Your task to perform on an android device: turn on notifications settings in the gmail app Image 0: 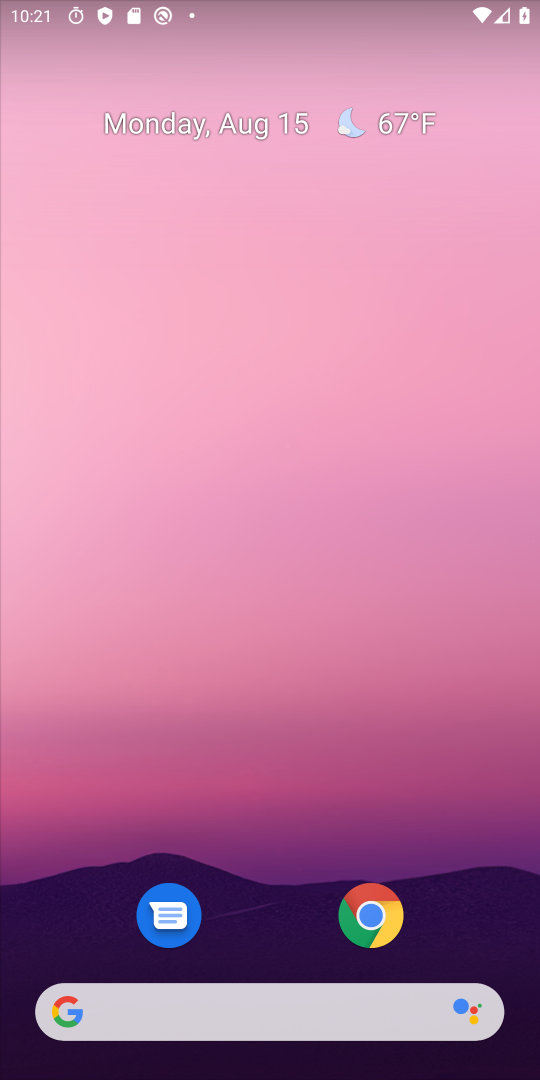
Step 0: drag from (460, 911) to (390, 151)
Your task to perform on an android device: turn on notifications settings in the gmail app Image 1: 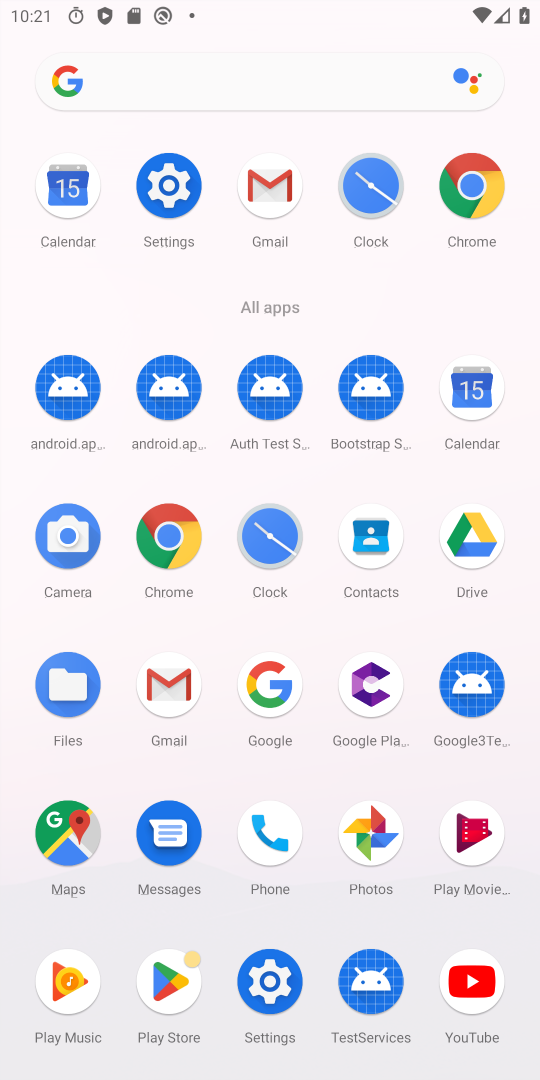
Step 1: click (175, 682)
Your task to perform on an android device: turn on notifications settings in the gmail app Image 2: 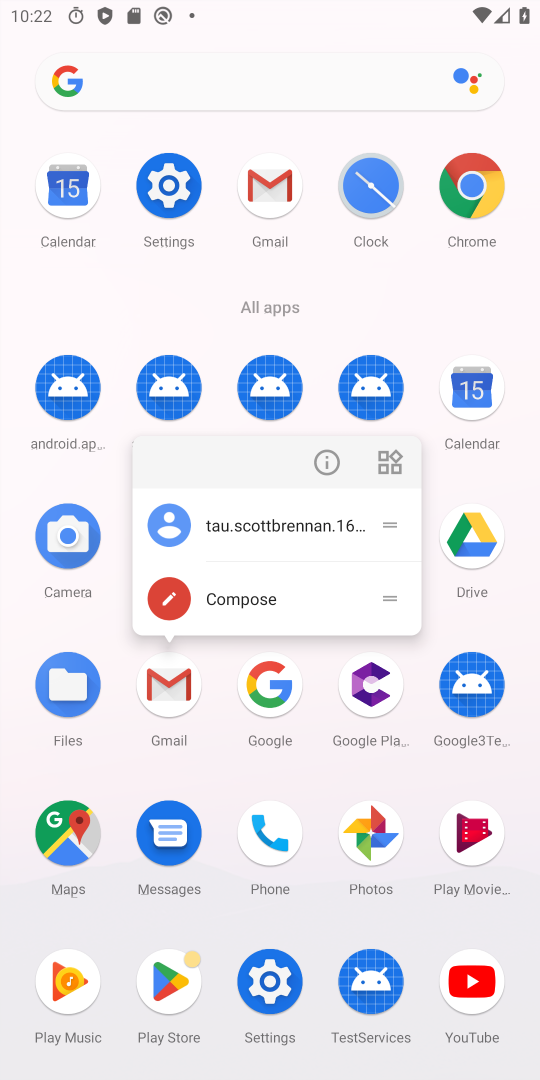
Step 2: click (330, 464)
Your task to perform on an android device: turn on notifications settings in the gmail app Image 3: 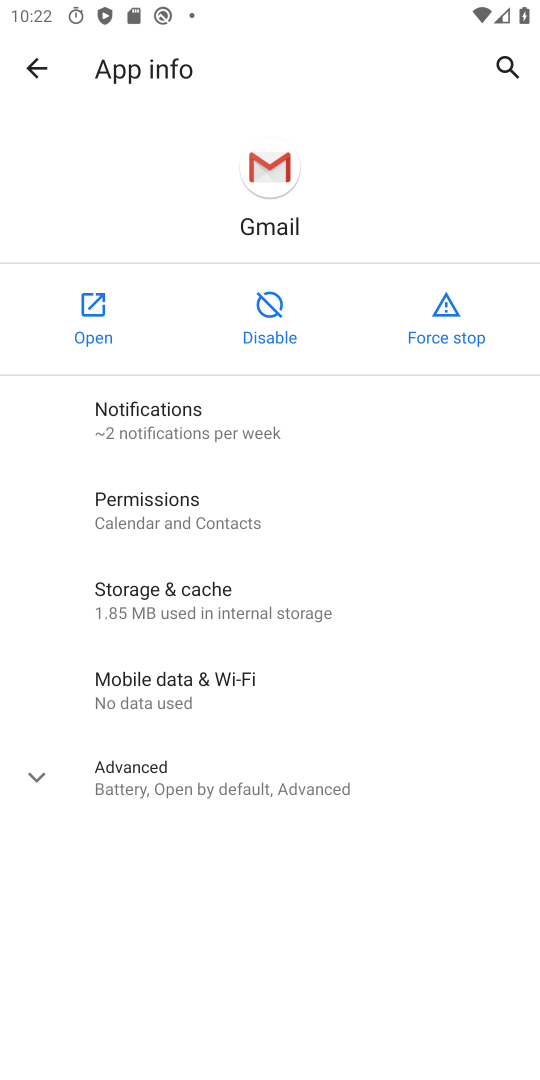
Step 3: click (192, 421)
Your task to perform on an android device: turn on notifications settings in the gmail app Image 4: 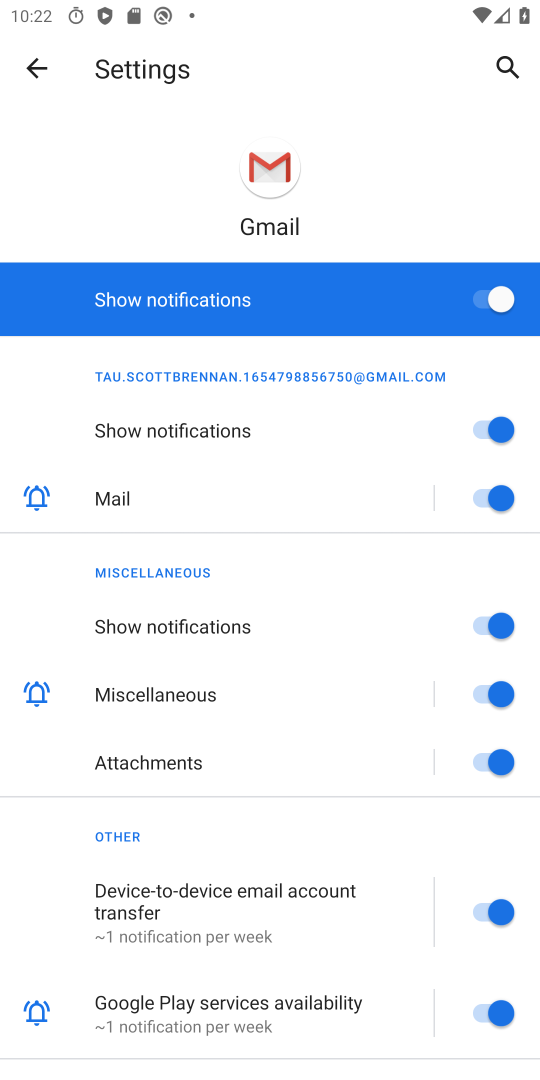
Step 4: task complete